Your task to perform on an android device: change keyboard looks Image 0: 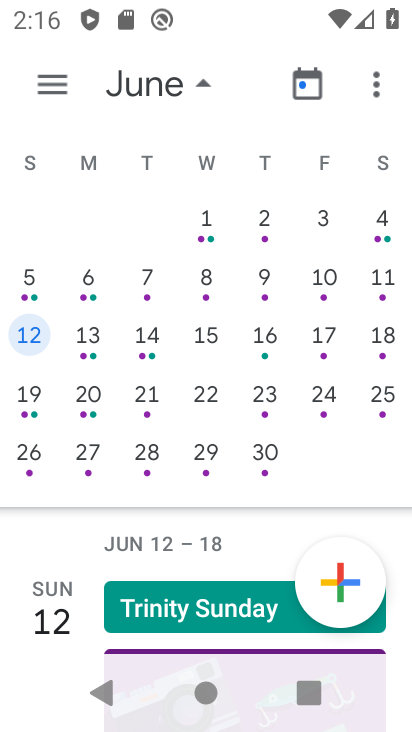
Step 0: press home button
Your task to perform on an android device: change keyboard looks Image 1: 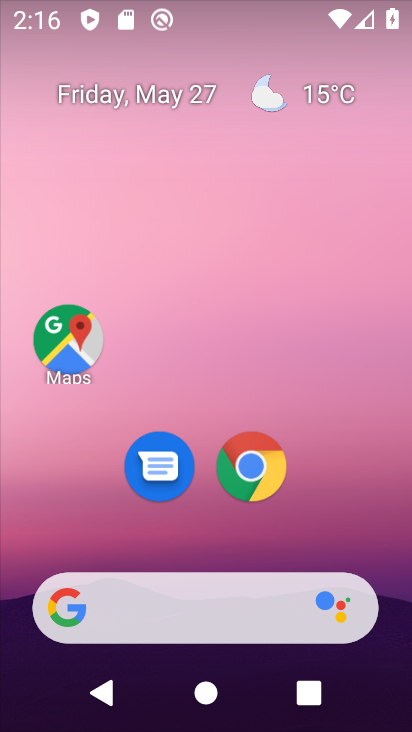
Step 1: drag from (385, 450) to (396, 98)
Your task to perform on an android device: change keyboard looks Image 2: 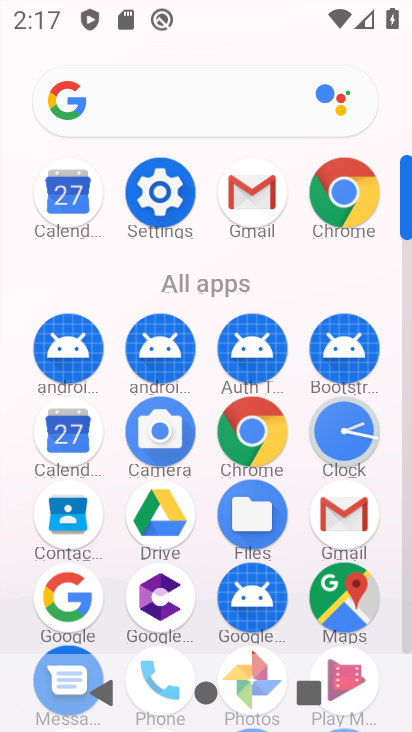
Step 2: click (175, 194)
Your task to perform on an android device: change keyboard looks Image 3: 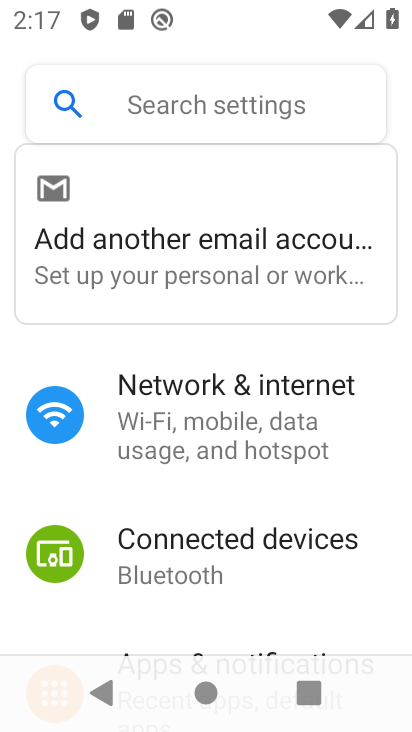
Step 3: drag from (223, 581) to (251, 242)
Your task to perform on an android device: change keyboard looks Image 4: 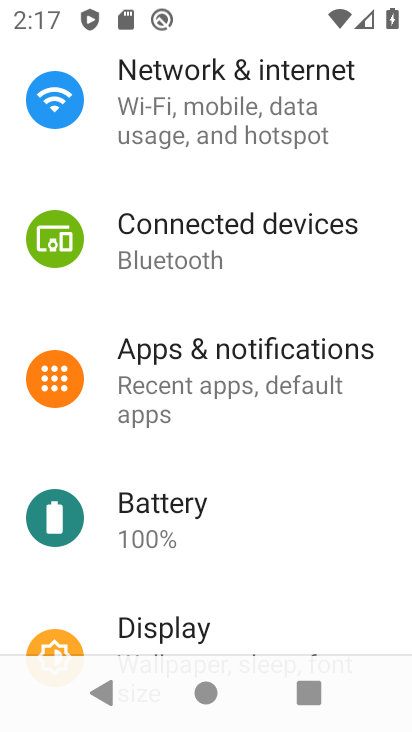
Step 4: drag from (320, 607) to (267, 173)
Your task to perform on an android device: change keyboard looks Image 5: 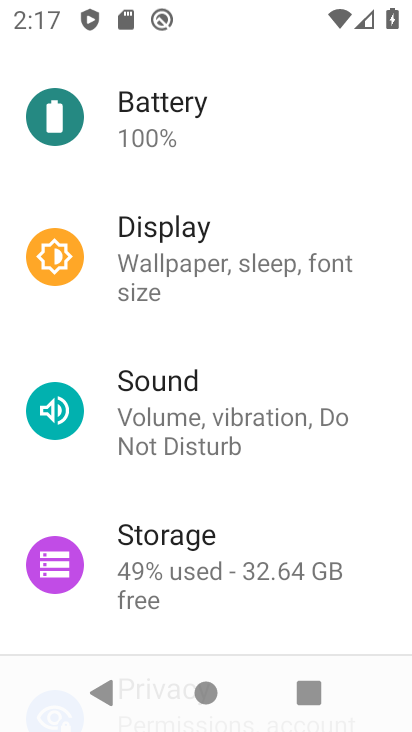
Step 5: drag from (271, 621) to (306, 209)
Your task to perform on an android device: change keyboard looks Image 6: 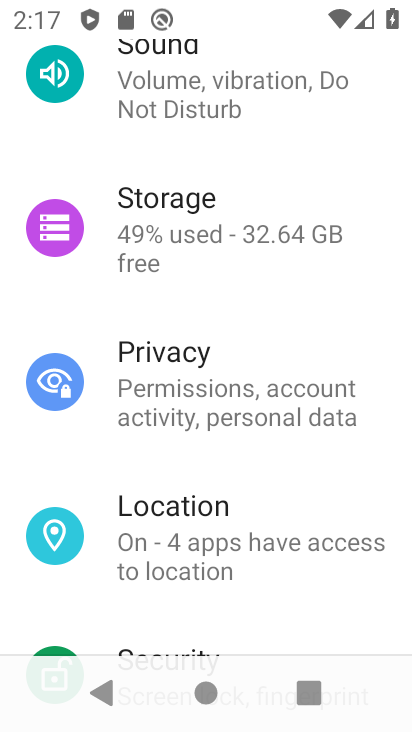
Step 6: drag from (254, 625) to (295, 159)
Your task to perform on an android device: change keyboard looks Image 7: 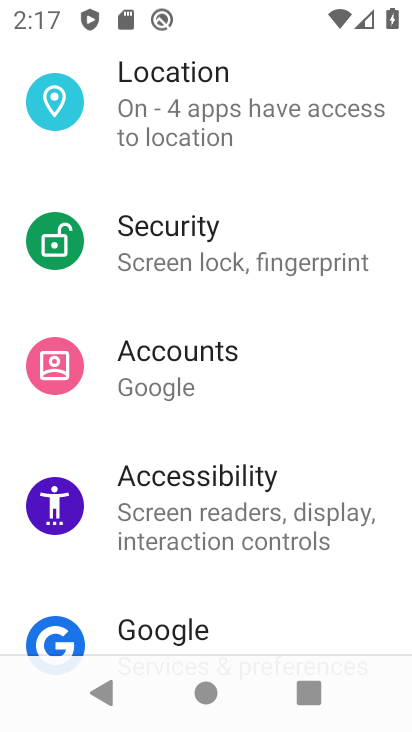
Step 7: drag from (259, 587) to (247, 273)
Your task to perform on an android device: change keyboard looks Image 8: 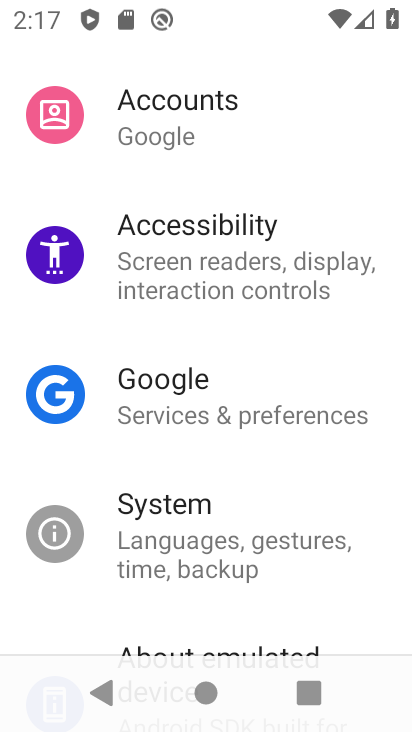
Step 8: drag from (255, 578) to (269, 239)
Your task to perform on an android device: change keyboard looks Image 9: 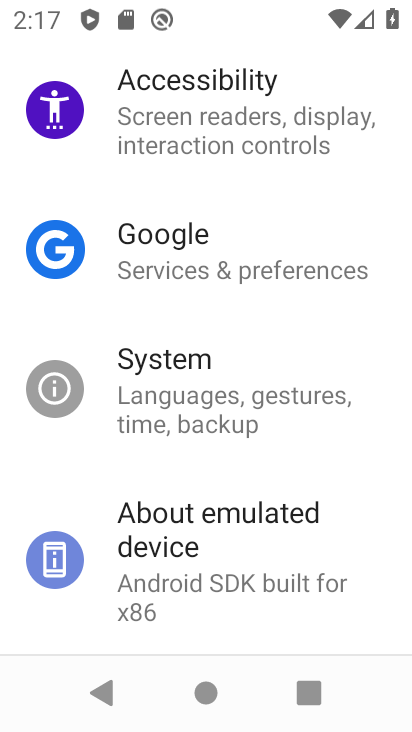
Step 9: click (254, 396)
Your task to perform on an android device: change keyboard looks Image 10: 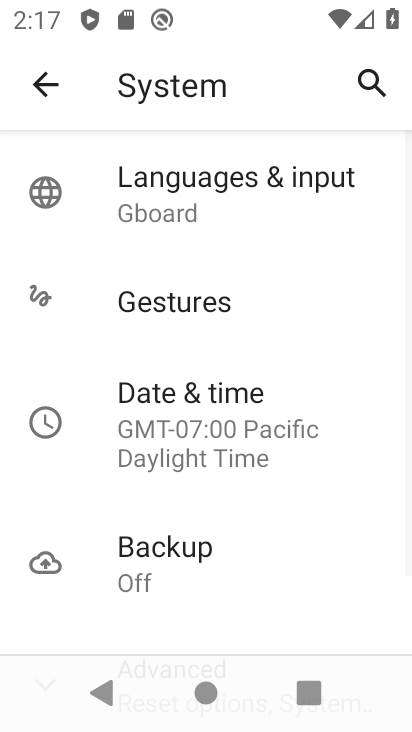
Step 10: click (296, 193)
Your task to perform on an android device: change keyboard looks Image 11: 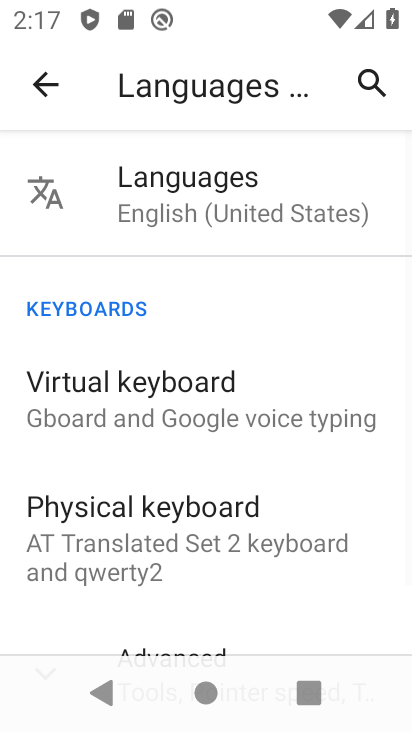
Step 11: click (239, 396)
Your task to perform on an android device: change keyboard looks Image 12: 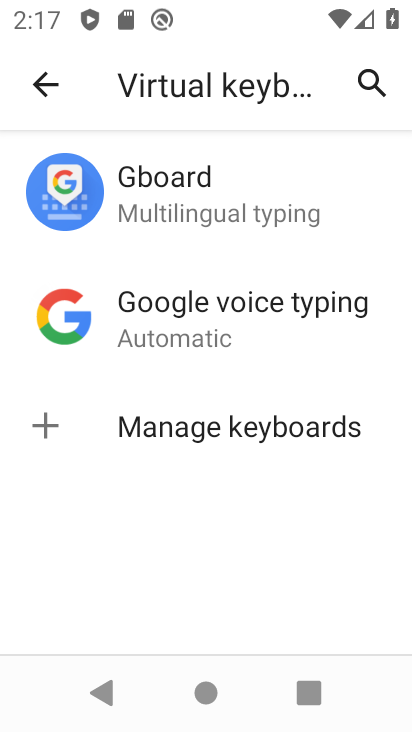
Step 12: click (238, 204)
Your task to perform on an android device: change keyboard looks Image 13: 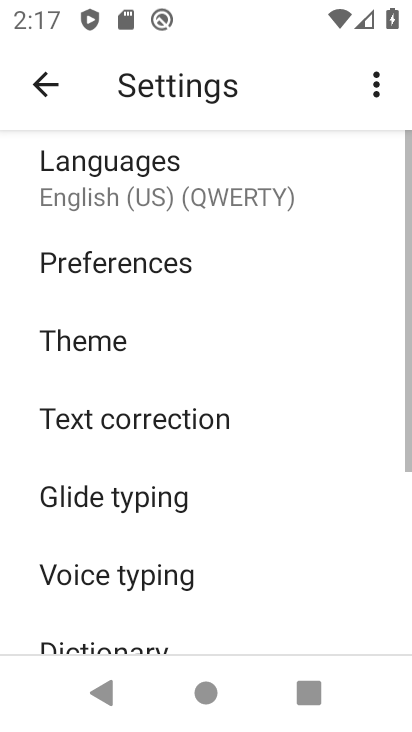
Step 13: click (154, 338)
Your task to perform on an android device: change keyboard looks Image 14: 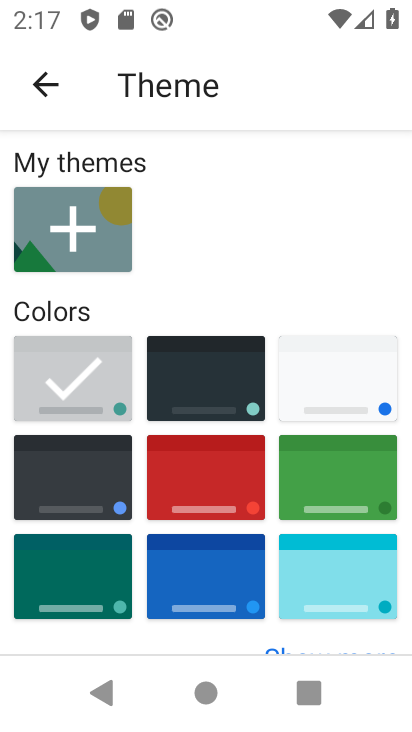
Step 14: click (189, 389)
Your task to perform on an android device: change keyboard looks Image 15: 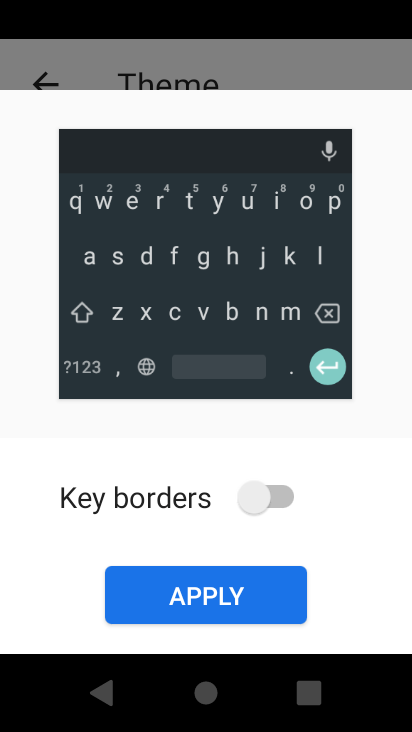
Step 15: click (220, 600)
Your task to perform on an android device: change keyboard looks Image 16: 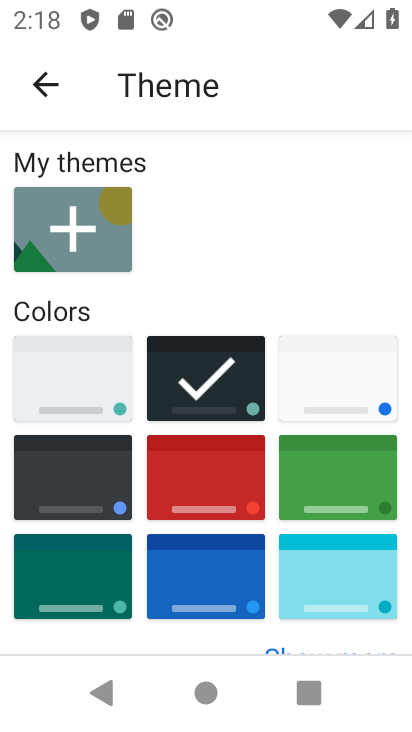
Step 16: task complete